Your task to perform on an android device: turn off sleep mode Image 0: 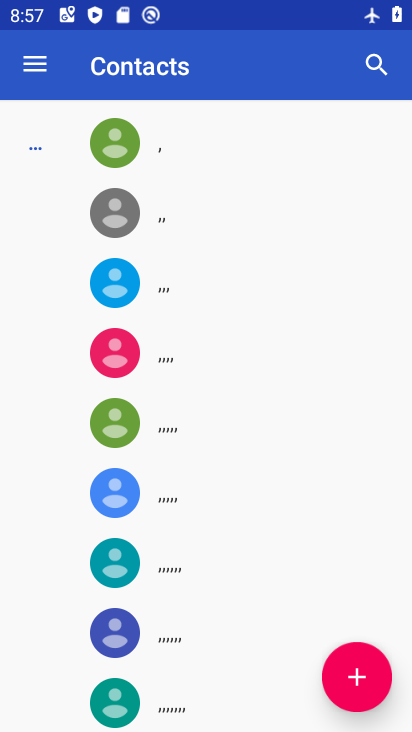
Step 0: press back button
Your task to perform on an android device: turn off sleep mode Image 1: 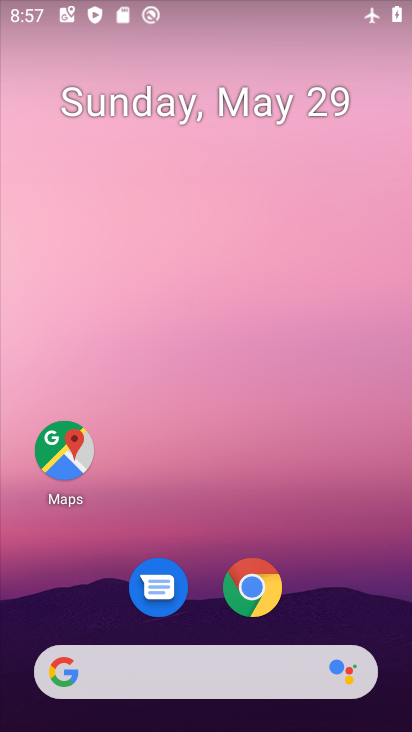
Step 1: drag from (233, 449) to (253, 2)
Your task to perform on an android device: turn off sleep mode Image 2: 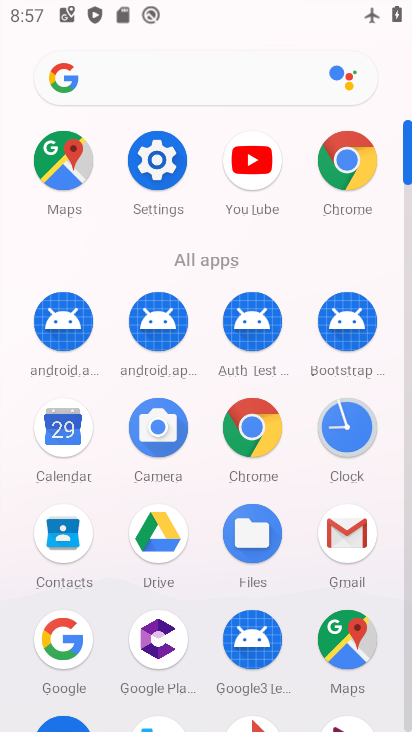
Step 2: click (143, 167)
Your task to perform on an android device: turn off sleep mode Image 3: 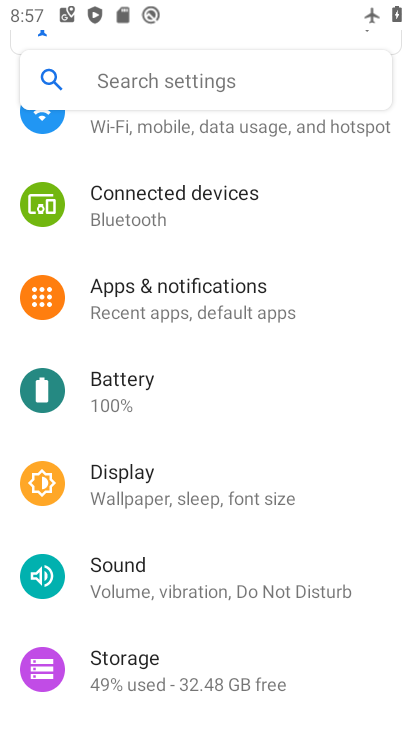
Step 3: click (157, 81)
Your task to perform on an android device: turn off sleep mode Image 4: 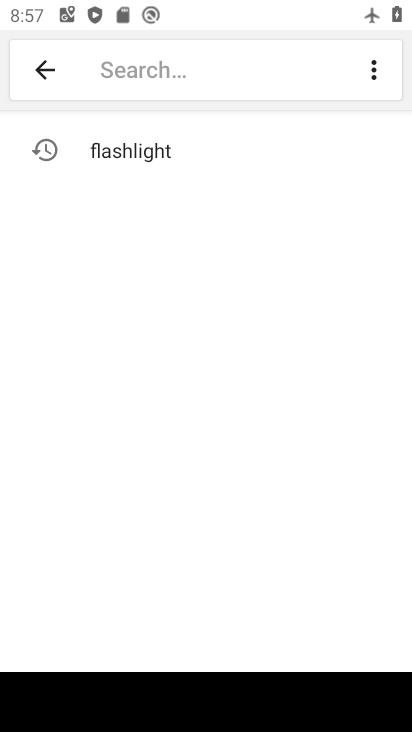
Step 4: type "sleep mode"
Your task to perform on an android device: turn off sleep mode Image 5: 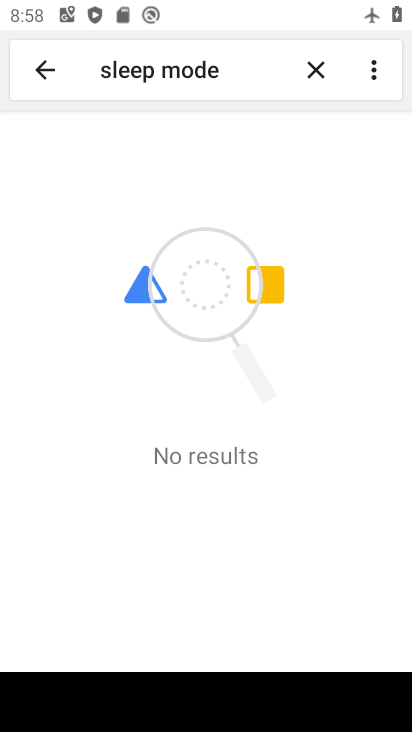
Step 5: task complete